Your task to perform on an android device: find which apps use the phone's location Image 0: 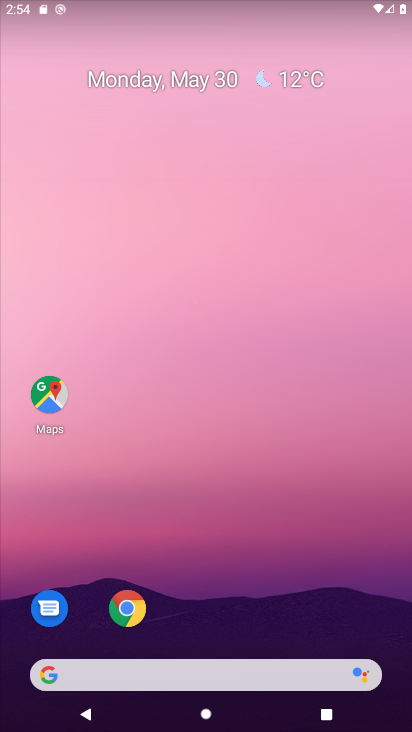
Step 0: drag from (280, 566) to (193, 90)
Your task to perform on an android device: find which apps use the phone's location Image 1: 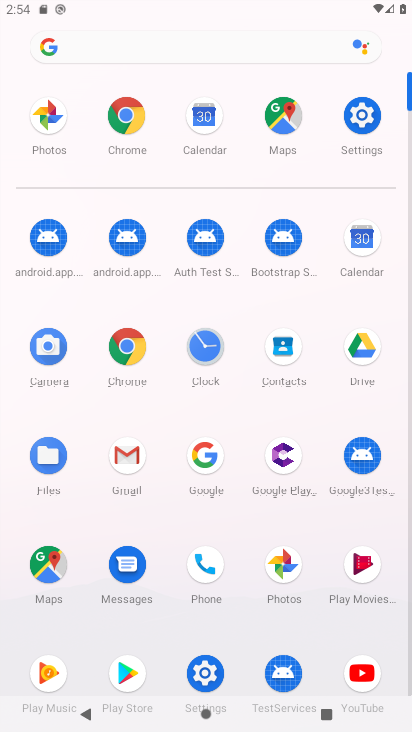
Step 1: click (361, 106)
Your task to perform on an android device: find which apps use the phone's location Image 2: 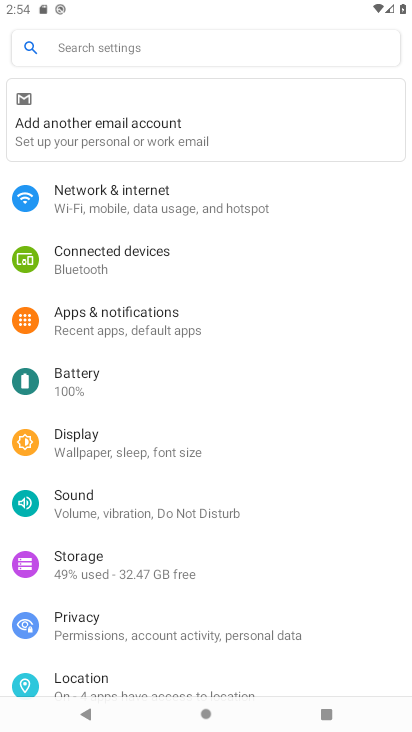
Step 2: drag from (225, 570) to (213, 287)
Your task to perform on an android device: find which apps use the phone's location Image 3: 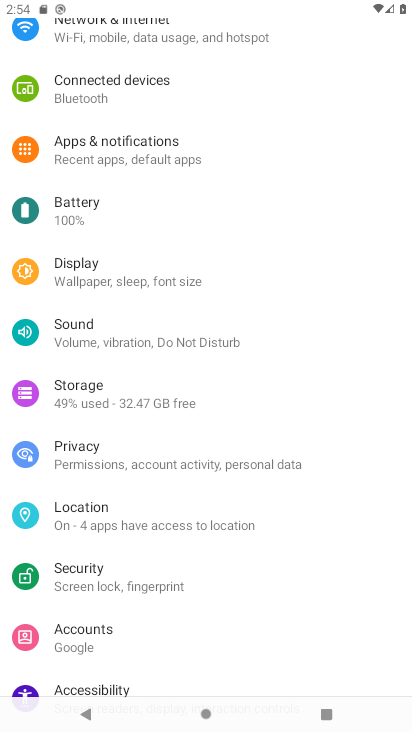
Step 3: click (154, 515)
Your task to perform on an android device: find which apps use the phone's location Image 4: 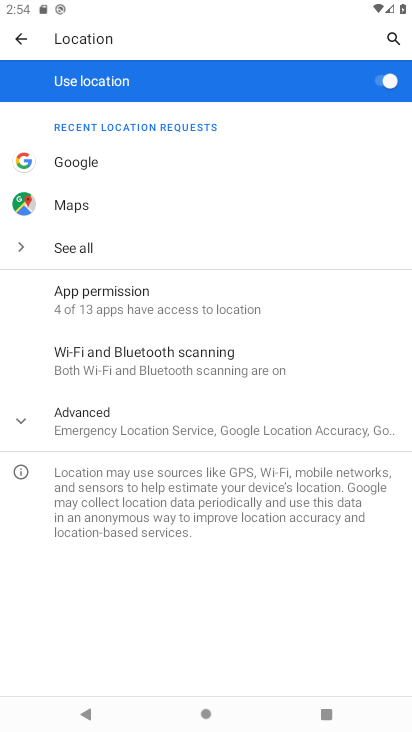
Step 4: click (207, 306)
Your task to perform on an android device: find which apps use the phone's location Image 5: 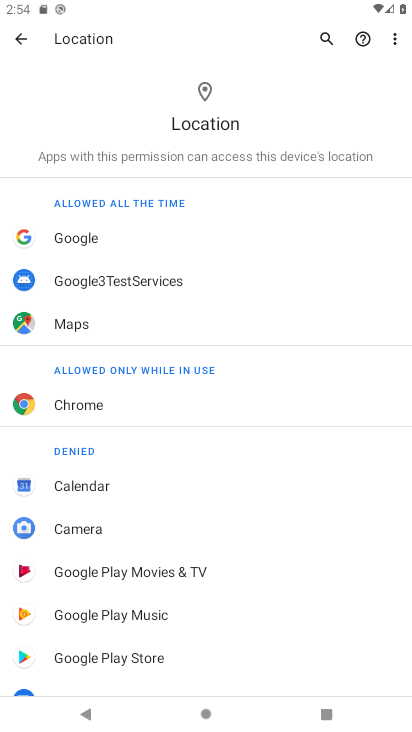
Step 5: task complete